Your task to perform on an android device: Do I have any events tomorrow? Image 0: 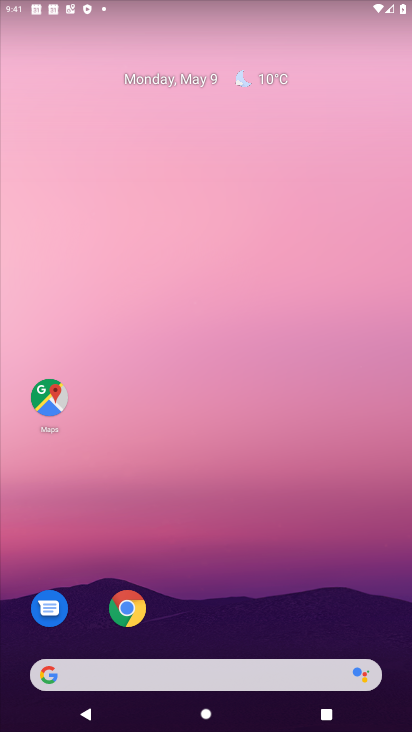
Step 0: drag from (230, 532) to (164, 209)
Your task to perform on an android device: Do I have any events tomorrow? Image 1: 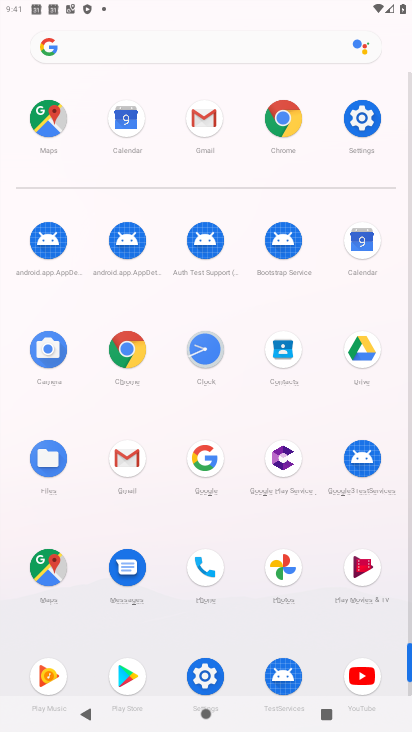
Step 1: click (359, 244)
Your task to perform on an android device: Do I have any events tomorrow? Image 2: 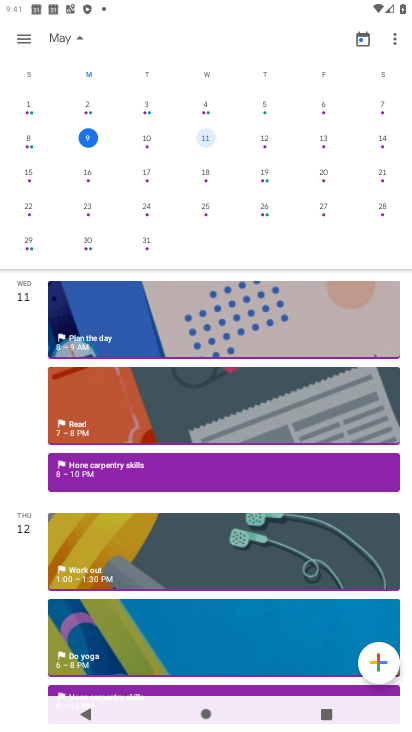
Step 2: click (145, 143)
Your task to perform on an android device: Do I have any events tomorrow? Image 3: 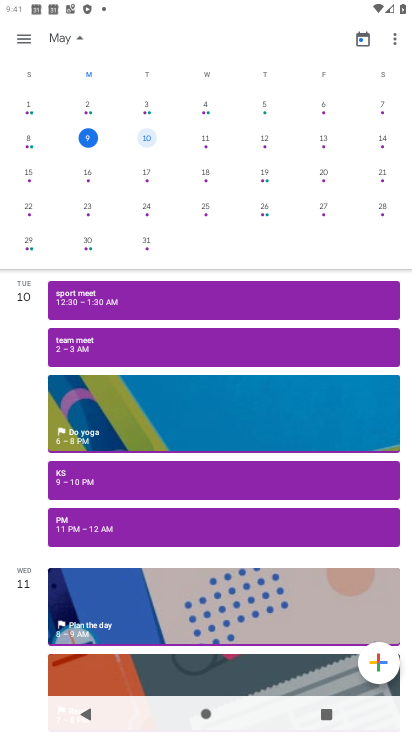
Step 3: task complete